Your task to perform on an android device: turn off notifications settings in the gmail app Image 0: 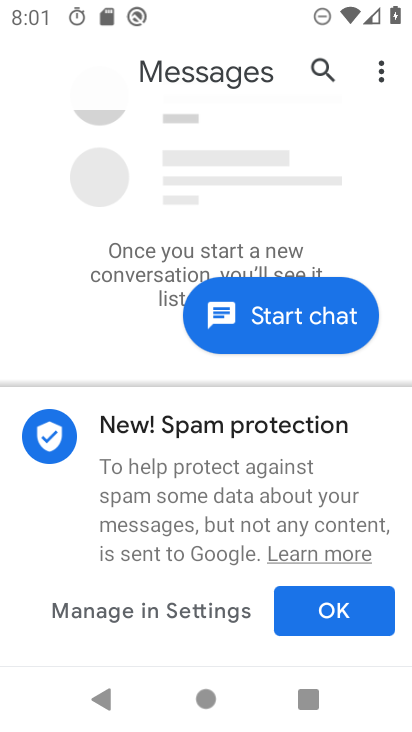
Step 0: press home button
Your task to perform on an android device: turn off notifications settings in the gmail app Image 1: 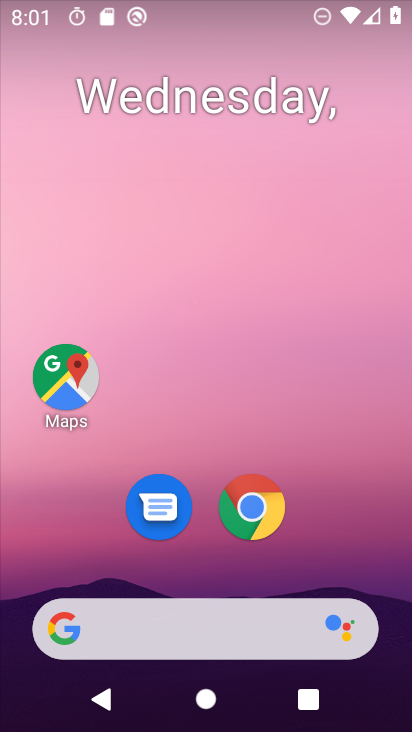
Step 1: drag from (247, 676) to (284, 248)
Your task to perform on an android device: turn off notifications settings in the gmail app Image 2: 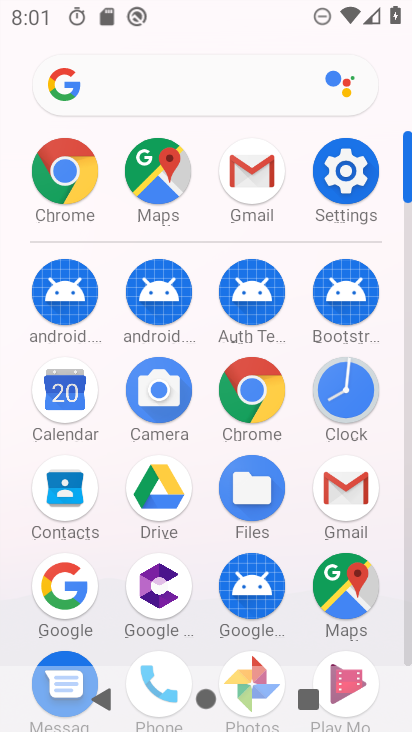
Step 2: click (245, 160)
Your task to perform on an android device: turn off notifications settings in the gmail app Image 3: 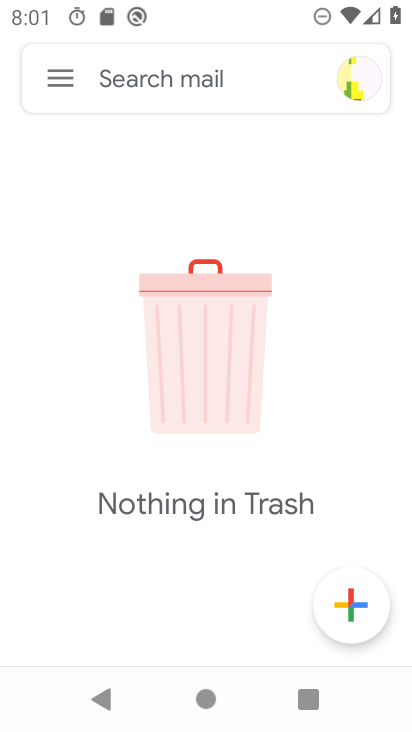
Step 3: click (50, 83)
Your task to perform on an android device: turn off notifications settings in the gmail app Image 4: 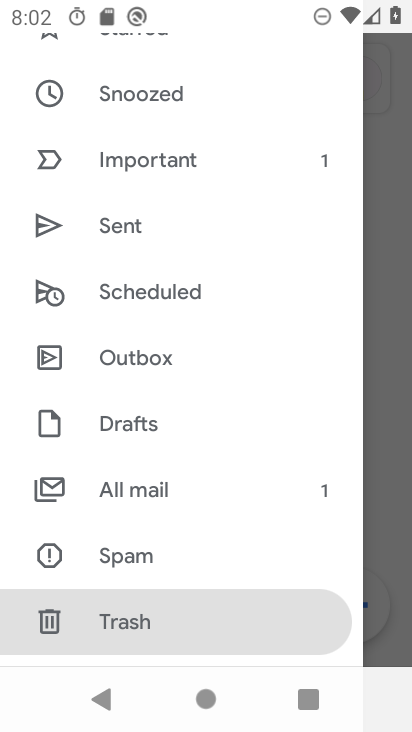
Step 4: drag from (128, 509) to (208, 296)
Your task to perform on an android device: turn off notifications settings in the gmail app Image 5: 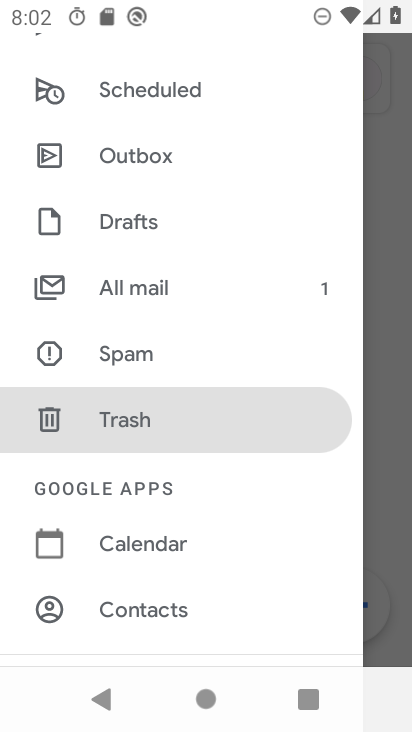
Step 5: drag from (135, 501) to (194, 343)
Your task to perform on an android device: turn off notifications settings in the gmail app Image 6: 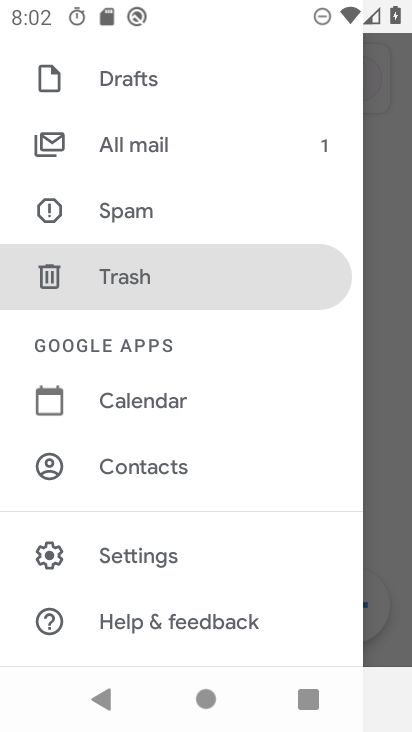
Step 6: click (136, 546)
Your task to perform on an android device: turn off notifications settings in the gmail app Image 7: 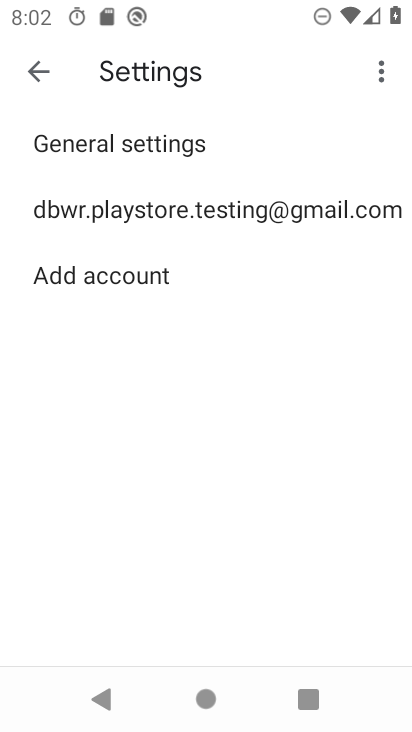
Step 7: click (190, 211)
Your task to perform on an android device: turn off notifications settings in the gmail app Image 8: 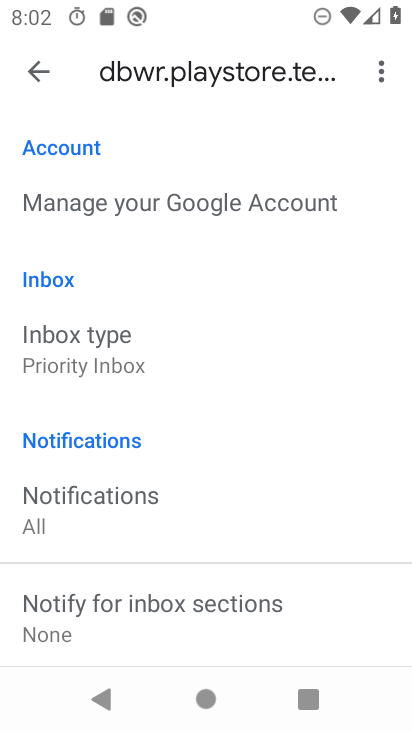
Step 8: drag from (216, 460) to (277, 301)
Your task to perform on an android device: turn off notifications settings in the gmail app Image 9: 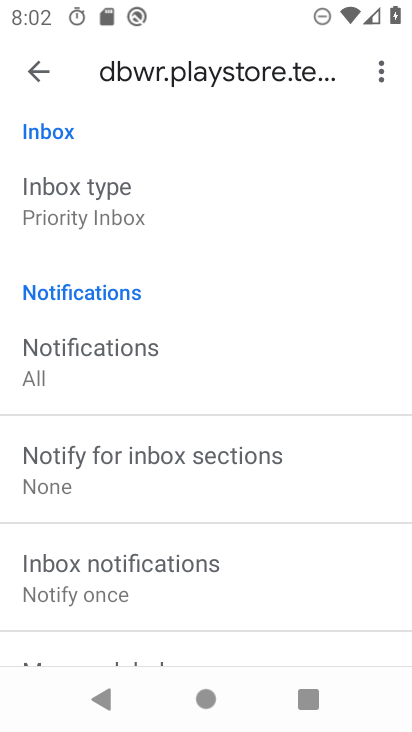
Step 9: drag from (214, 499) to (245, 303)
Your task to perform on an android device: turn off notifications settings in the gmail app Image 10: 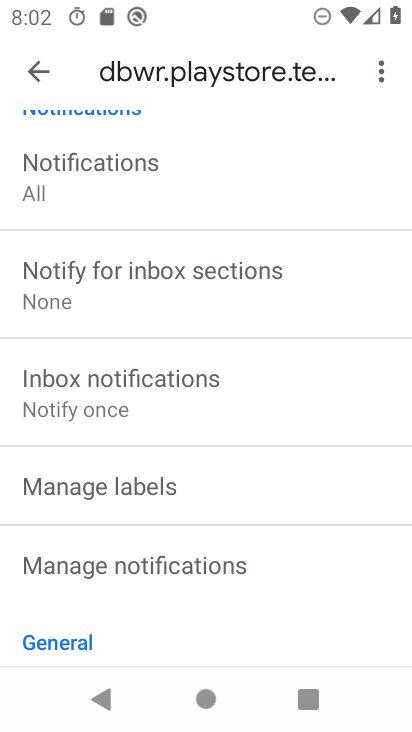
Step 10: click (155, 183)
Your task to perform on an android device: turn off notifications settings in the gmail app Image 11: 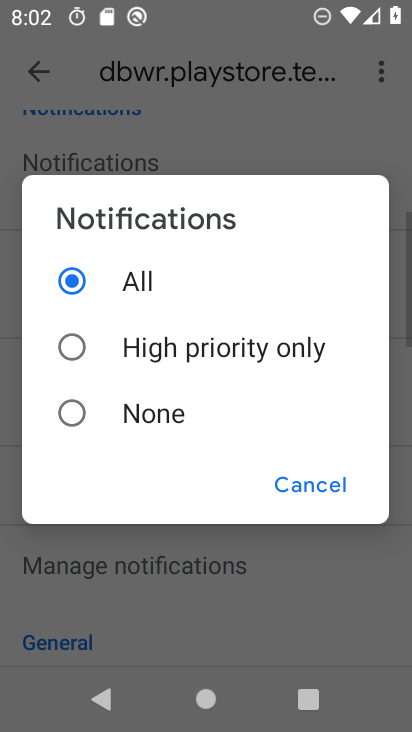
Step 11: click (139, 413)
Your task to perform on an android device: turn off notifications settings in the gmail app Image 12: 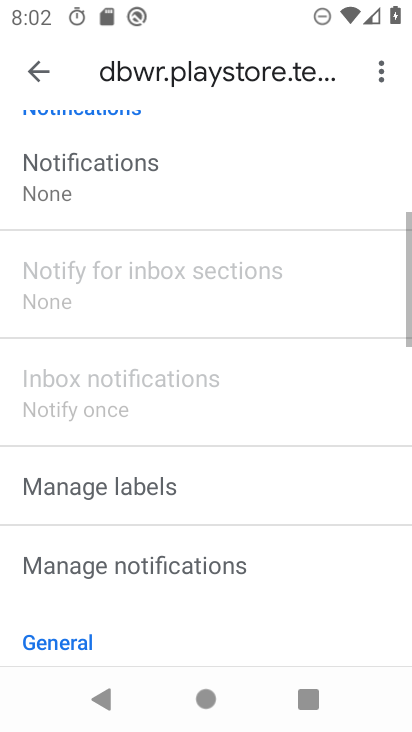
Step 12: task complete